Your task to perform on an android device: open chrome and create a bookmark for the current page Image 0: 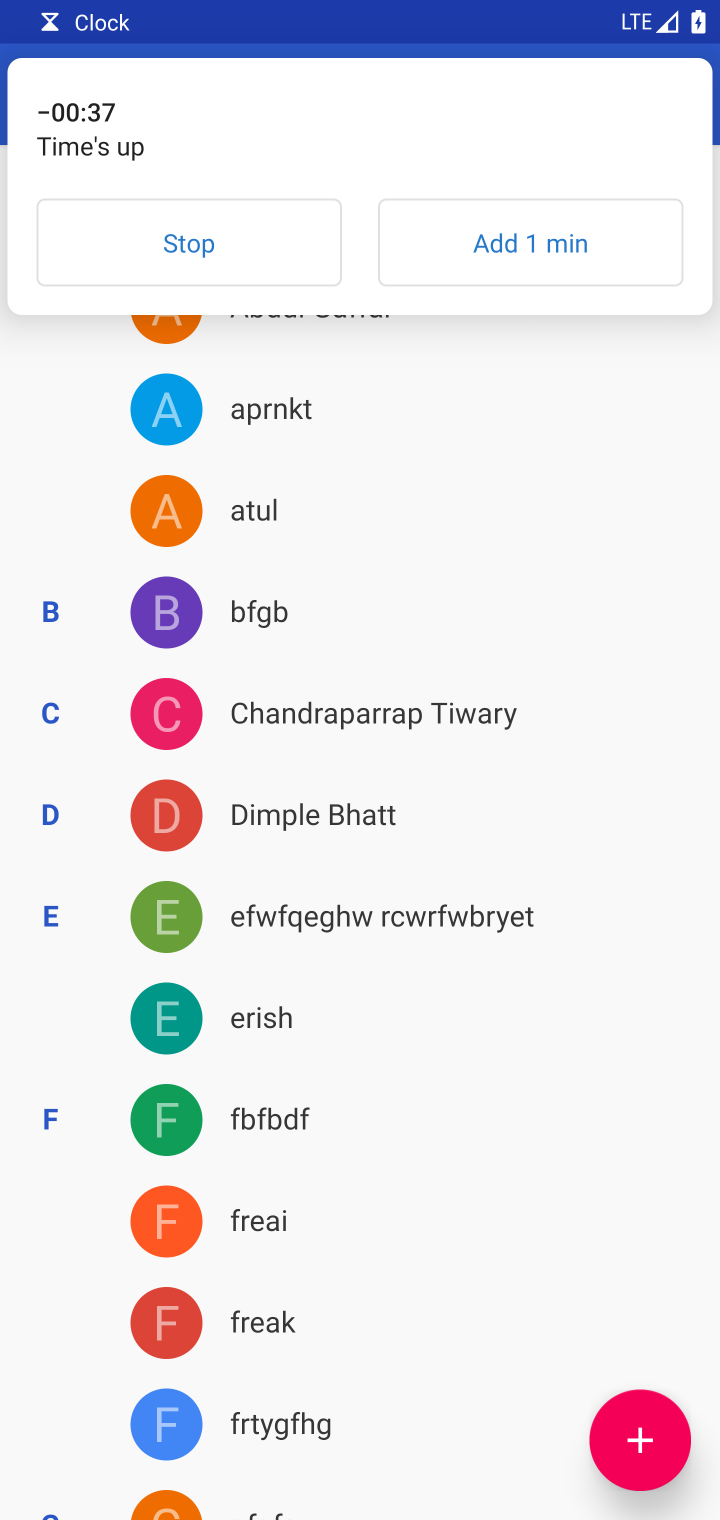
Step 0: press home button
Your task to perform on an android device: open chrome and create a bookmark for the current page Image 1: 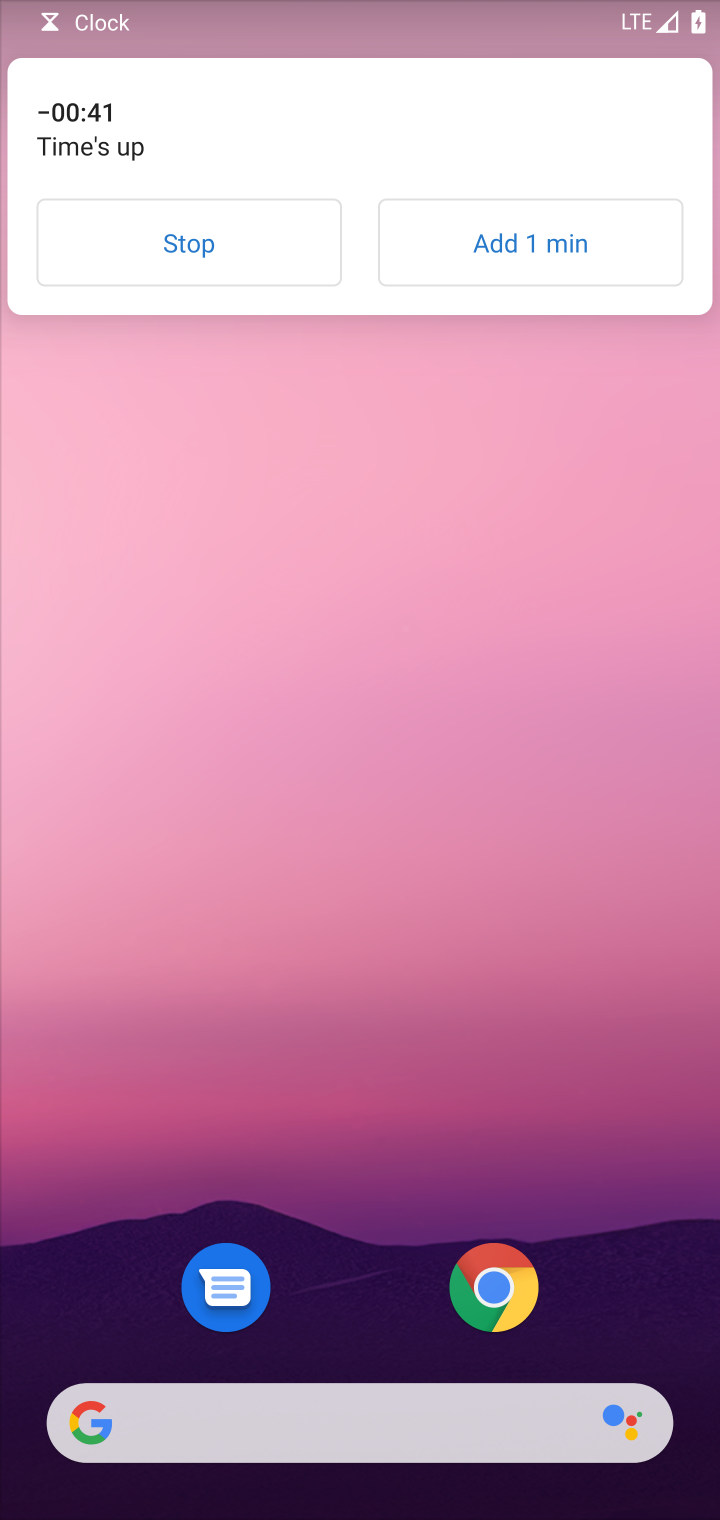
Step 1: click (498, 1278)
Your task to perform on an android device: open chrome and create a bookmark for the current page Image 2: 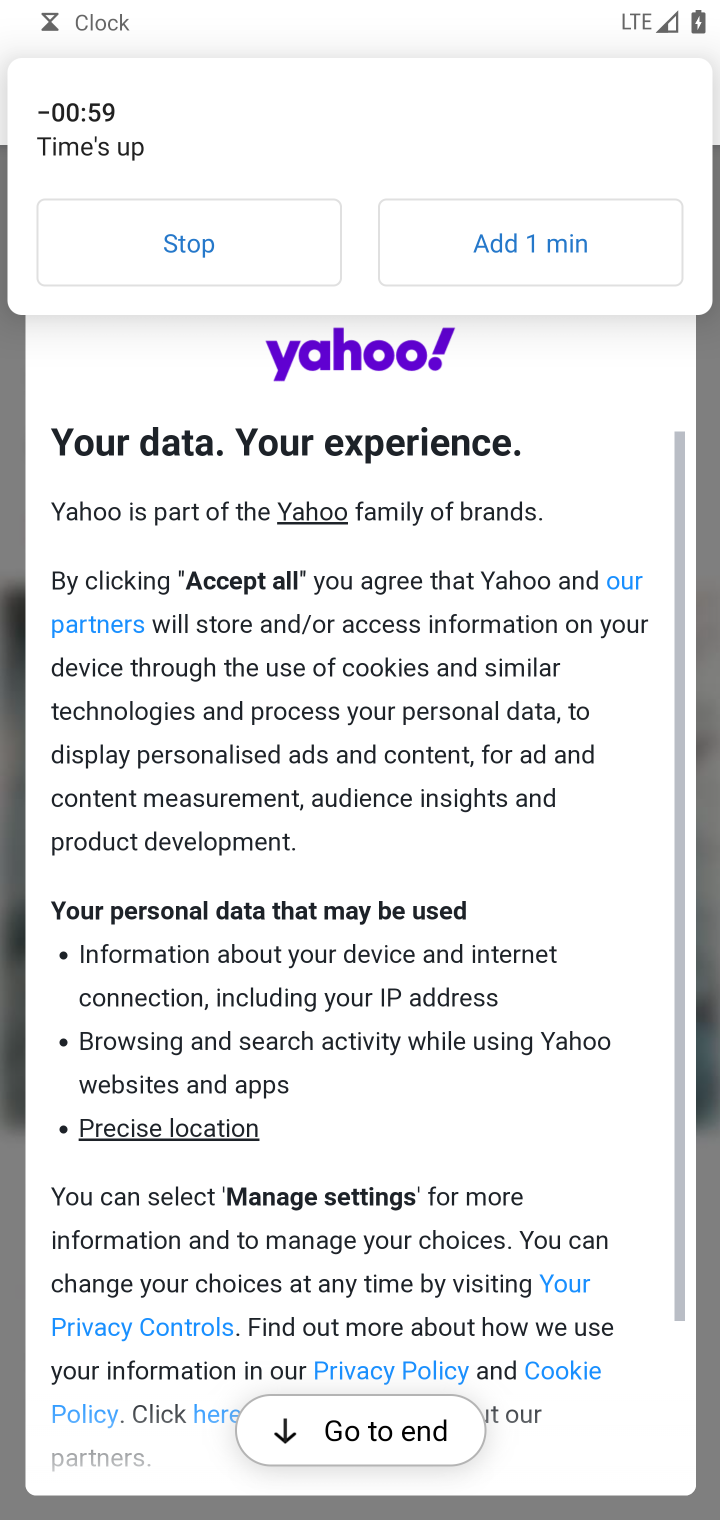
Step 2: click (387, 1425)
Your task to perform on an android device: open chrome and create a bookmark for the current page Image 3: 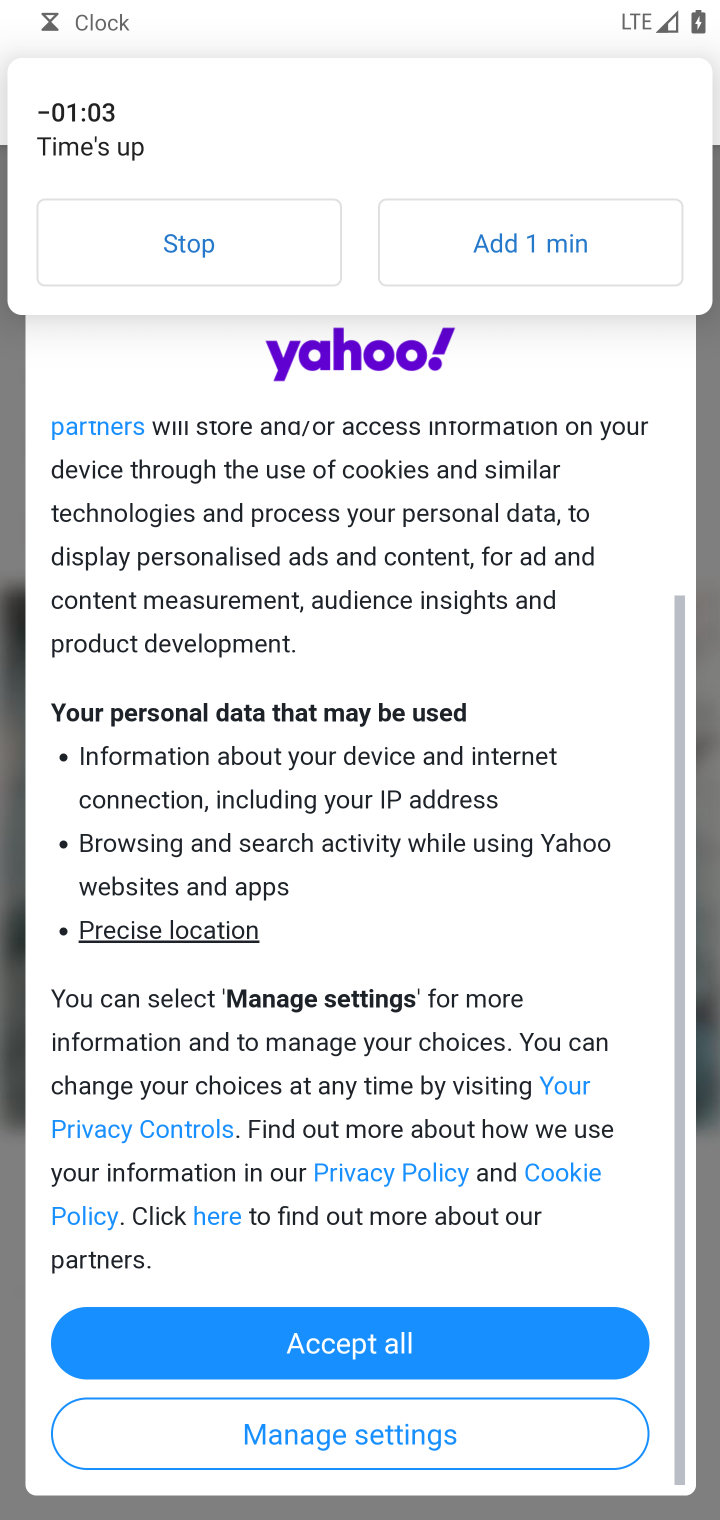
Step 3: click (174, 238)
Your task to perform on an android device: open chrome and create a bookmark for the current page Image 4: 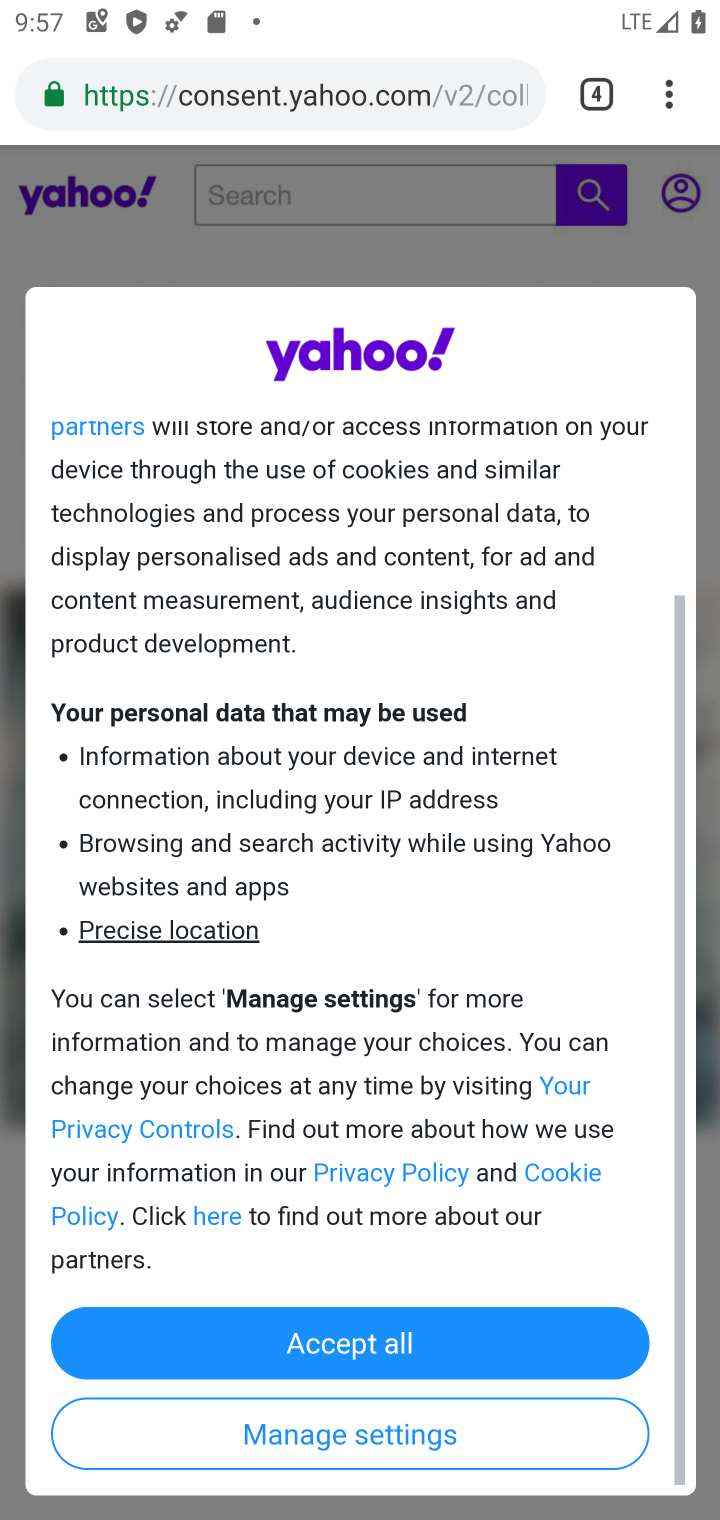
Step 4: click (668, 98)
Your task to perform on an android device: open chrome and create a bookmark for the current page Image 5: 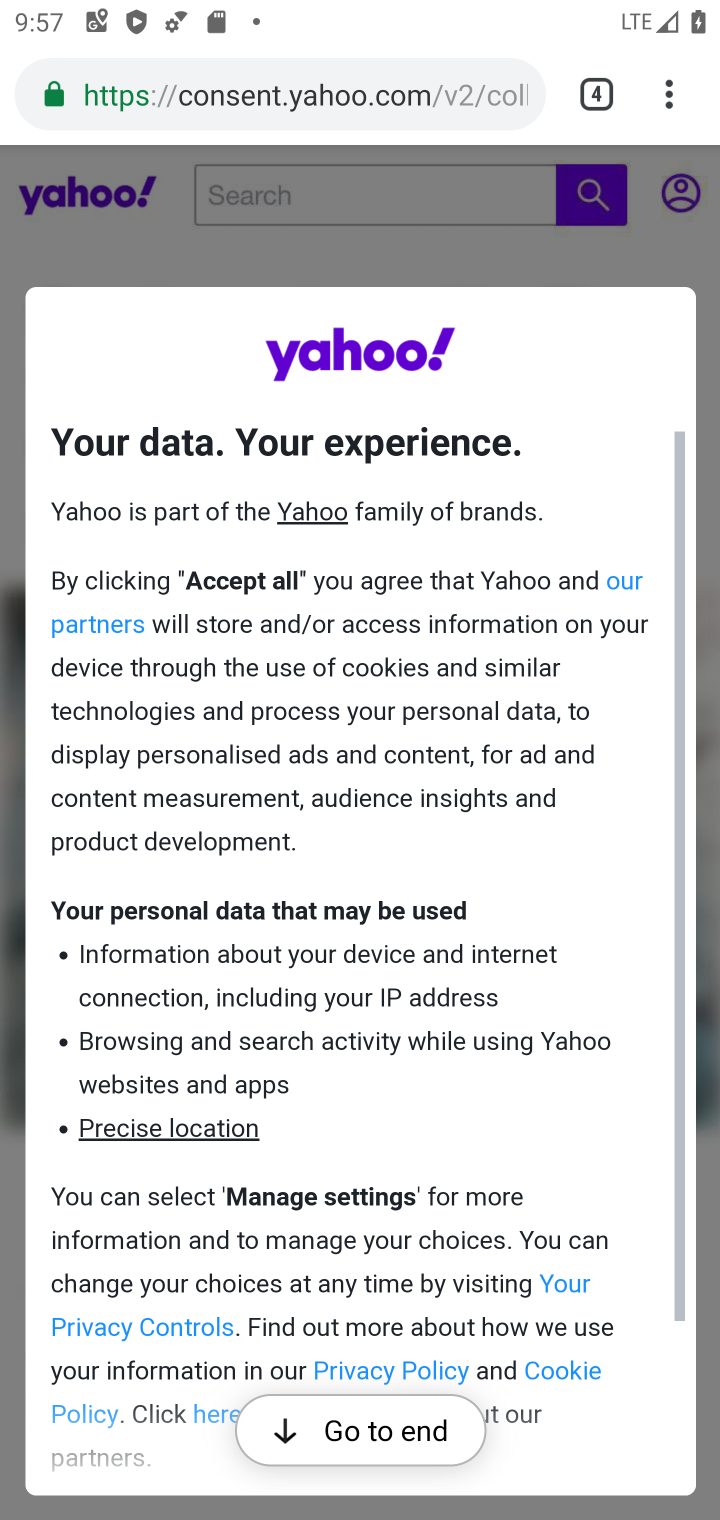
Step 5: task complete